Your task to perform on an android device: turn on the 24-hour format for clock Image 0: 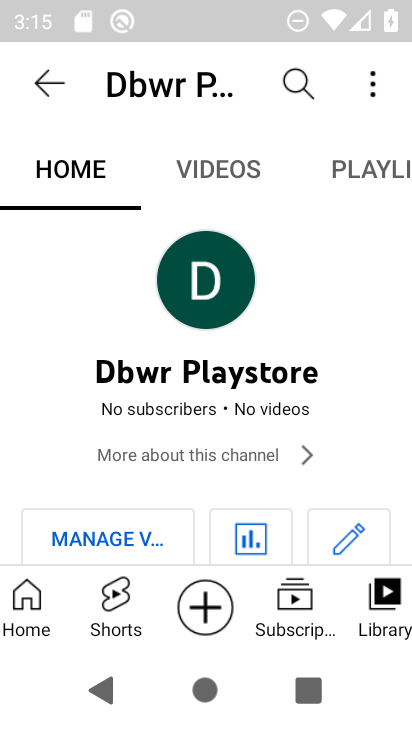
Step 0: press home button
Your task to perform on an android device: turn on the 24-hour format for clock Image 1: 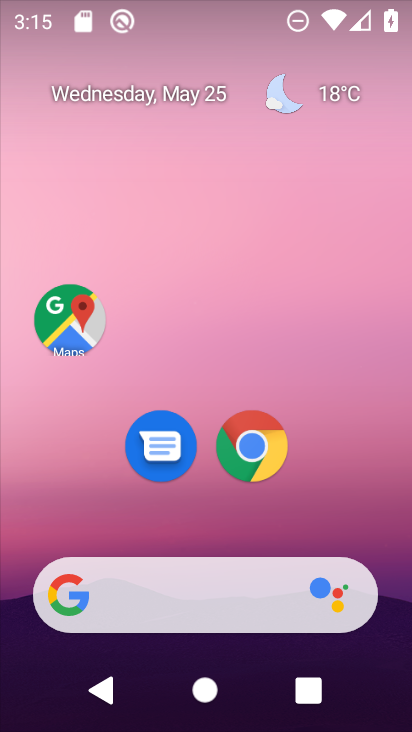
Step 1: drag from (254, 591) to (281, 26)
Your task to perform on an android device: turn on the 24-hour format for clock Image 2: 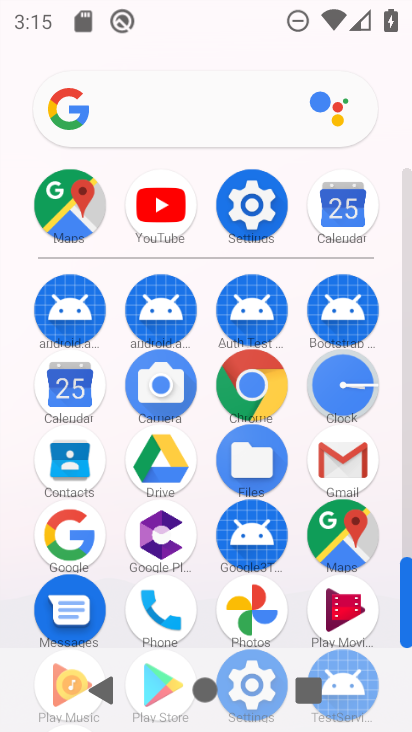
Step 2: click (239, 223)
Your task to perform on an android device: turn on the 24-hour format for clock Image 3: 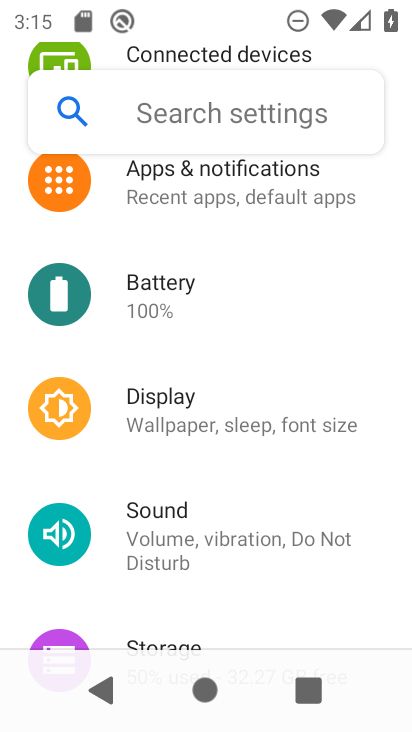
Step 3: drag from (238, 578) to (210, 117)
Your task to perform on an android device: turn on the 24-hour format for clock Image 4: 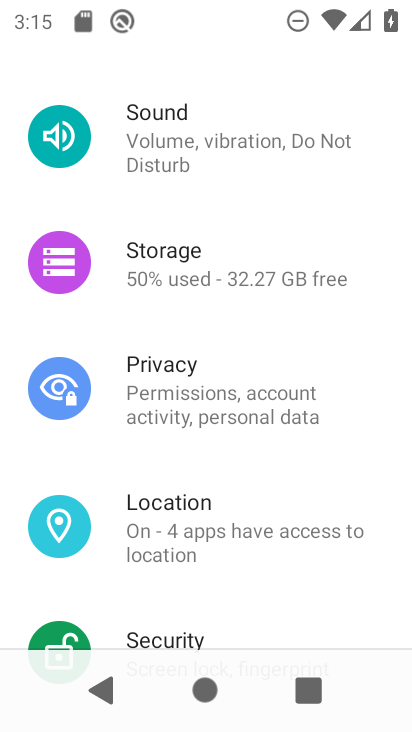
Step 4: drag from (162, 604) to (95, 1)
Your task to perform on an android device: turn on the 24-hour format for clock Image 5: 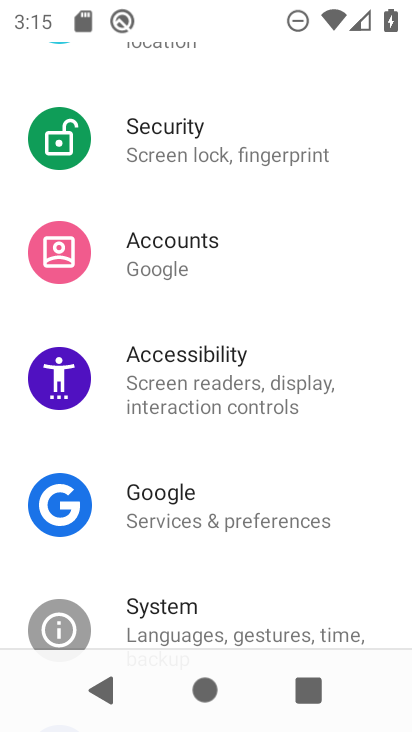
Step 5: click (176, 613)
Your task to perform on an android device: turn on the 24-hour format for clock Image 6: 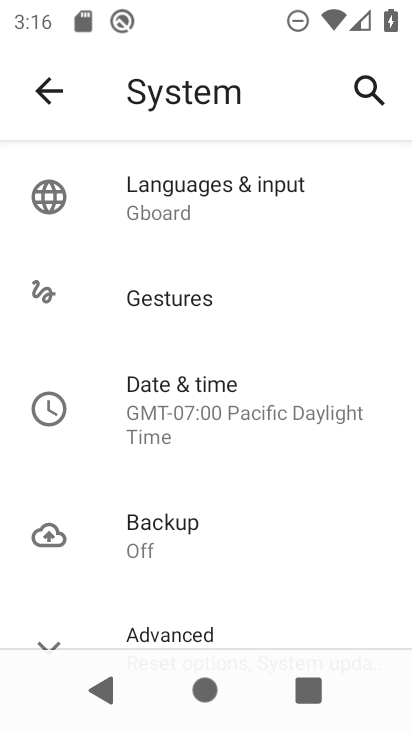
Step 6: click (162, 435)
Your task to perform on an android device: turn on the 24-hour format for clock Image 7: 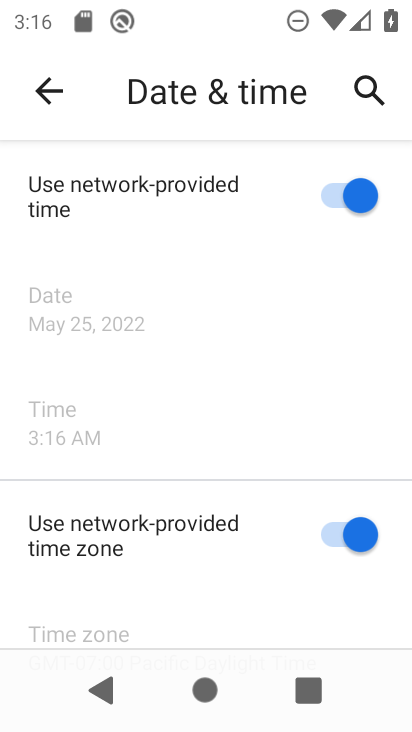
Step 7: drag from (193, 606) to (215, 81)
Your task to perform on an android device: turn on the 24-hour format for clock Image 8: 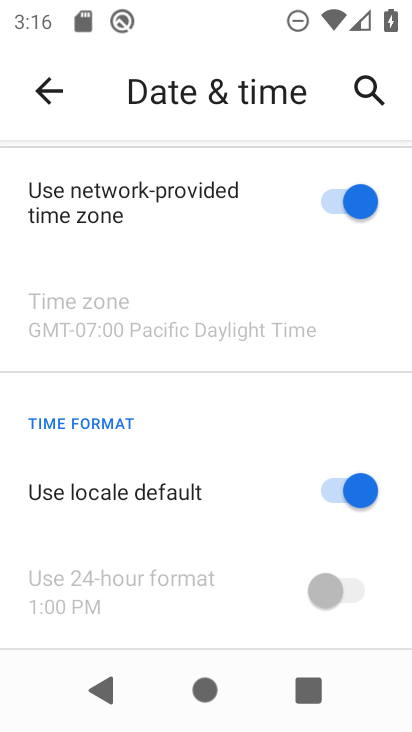
Step 8: click (344, 491)
Your task to perform on an android device: turn on the 24-hour format for clock Image 9: 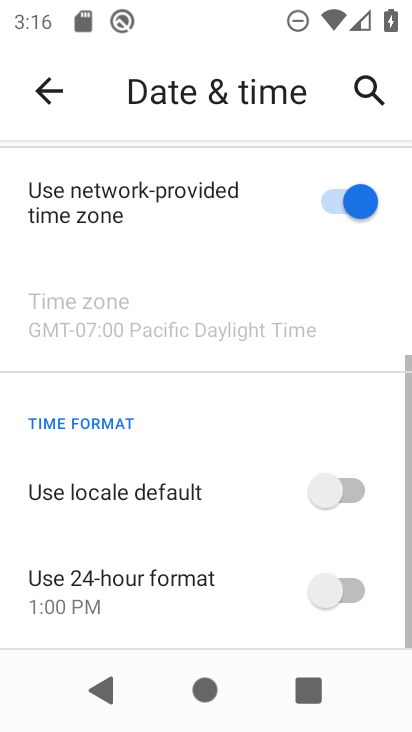
Step 9: click (347, 586)
Your task to perform on an android device: turn on the 24-hour format for clock Image 10: 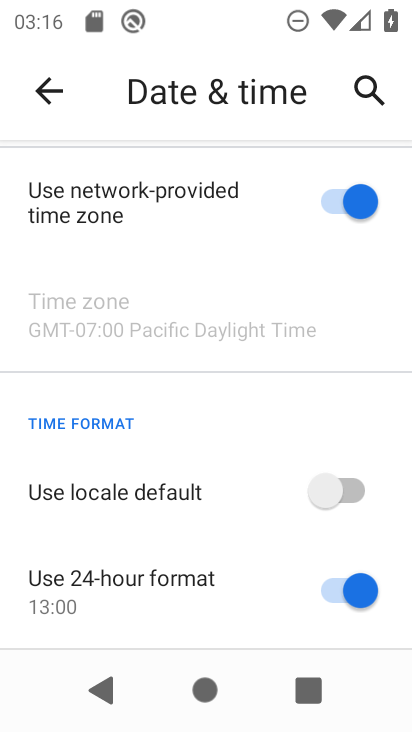
Step 10: task complete